Your task to perform on an android device: Open settings Image 0: 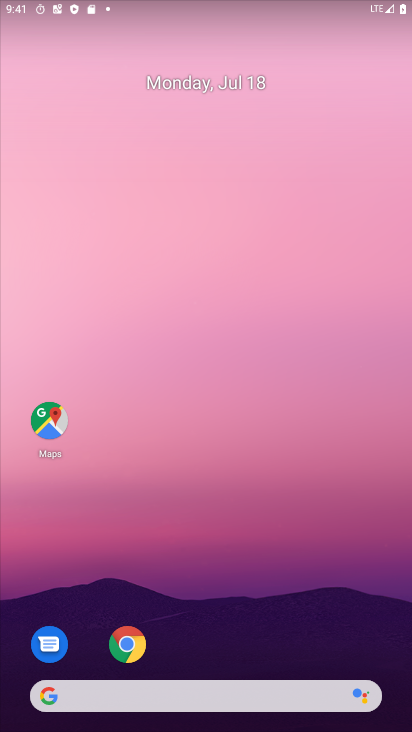
Step 0: drag from (211, 668) to (187, 24)
Your task to perform on an android device: Open settings Image 1: 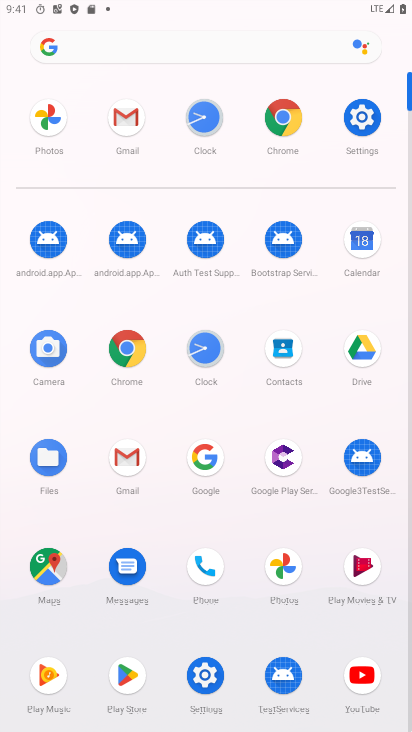
Step 1: click (351, 121)
Your task to perform on an android device: Open settings Image 2: 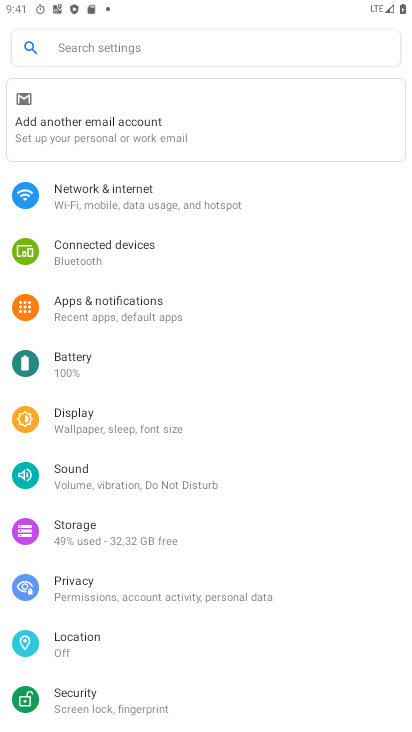
Step 2: task complete